Your task to perform on an android device: Open sound settings Image 0: 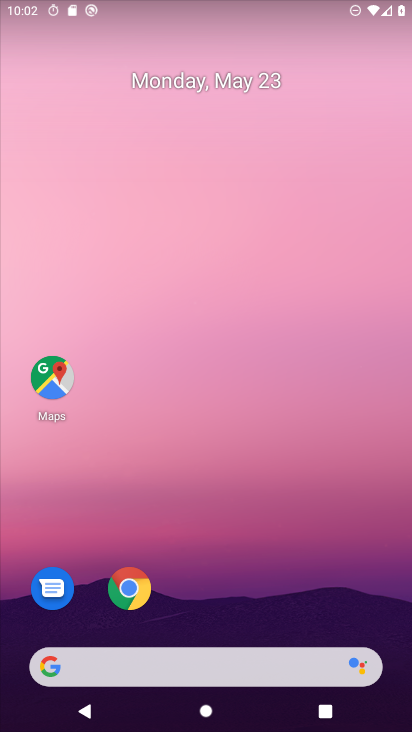
Step 0: drag from (387, 617) to (360, 93)
Your task to perform on an android device: Open sound settings Image 1: 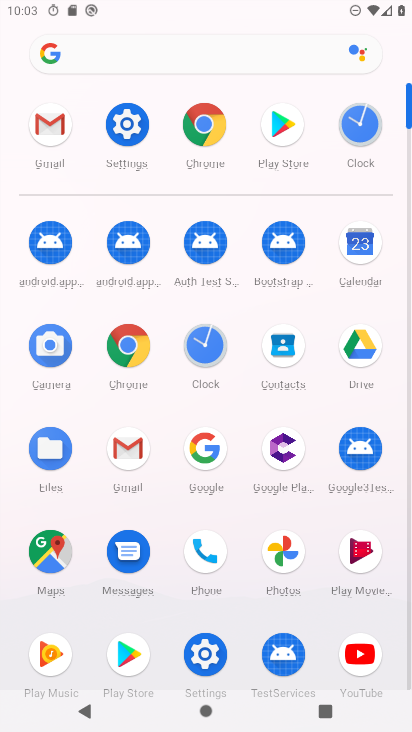
Step 1: click (213, 654)
Your task to perform on an android device: Open sound settings Image 2: 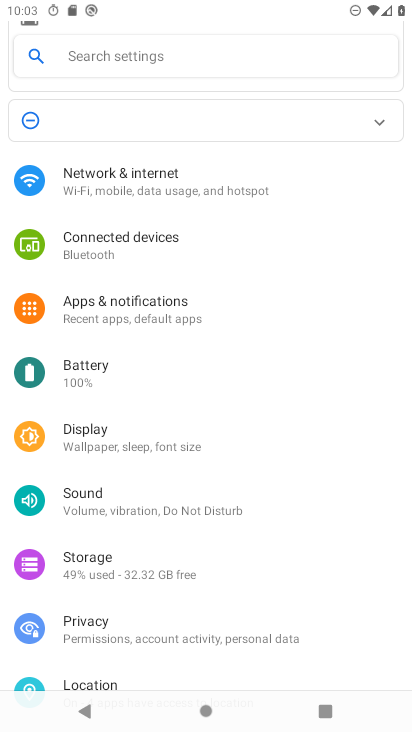
Step 2: click (114, 502)
Your task to perform on an android device: Open sound settings Image 3: 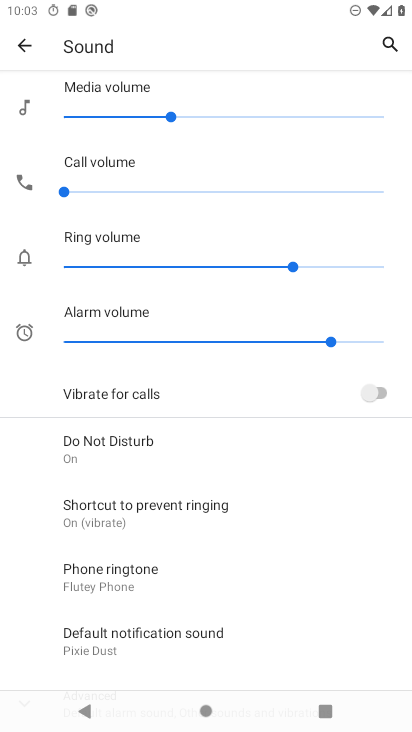
Step 3: task complete